Your task to perform on an android device: toggle improve location accuracy Image 0: 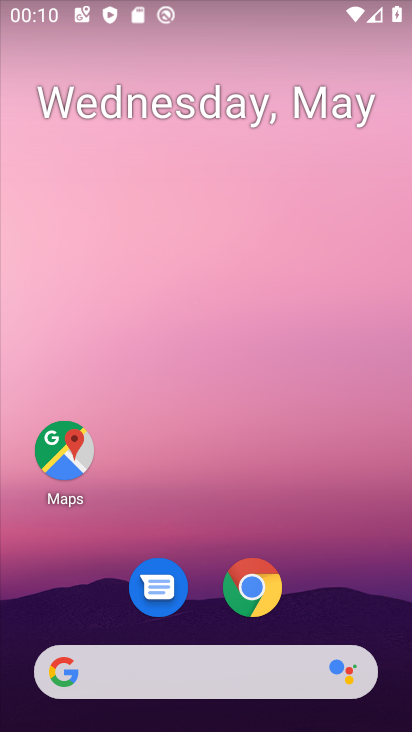
Step 0: drag from (374, 594) to (306, 179)
Your task to perform on an android device: toggle improve location accuracy Image 1: 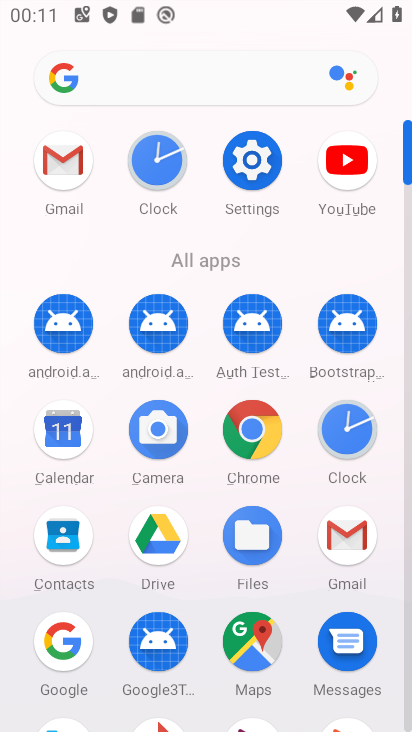
Step 1: click (244, 185)
Your task to perform on an android device: toggle improve location accuracy Image 2: 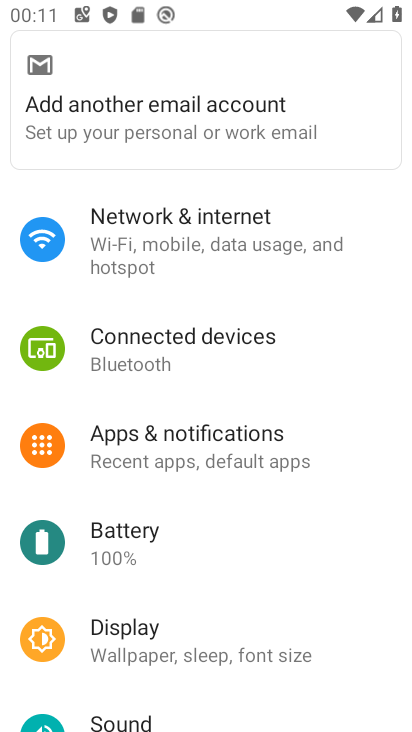
Step 2: drag from (240, 557) to (194, 395)
Your task to perform on an android device: toggle improve location accuracy Image 3: 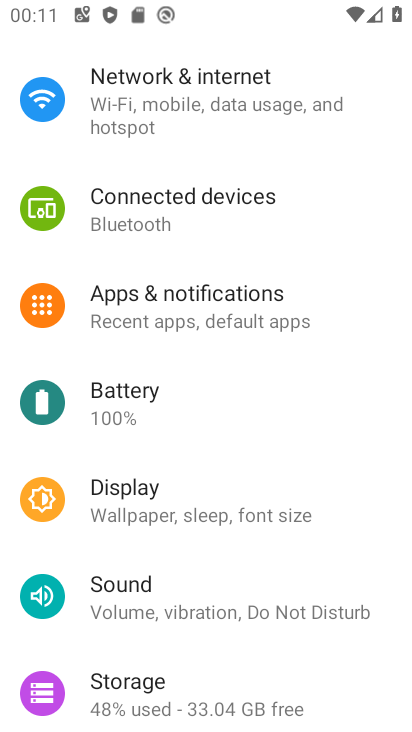
Step 3: drag from (241, 631) to (186, 377)
Your task to perform on an android device: toggle improve location accuracy Image 4: 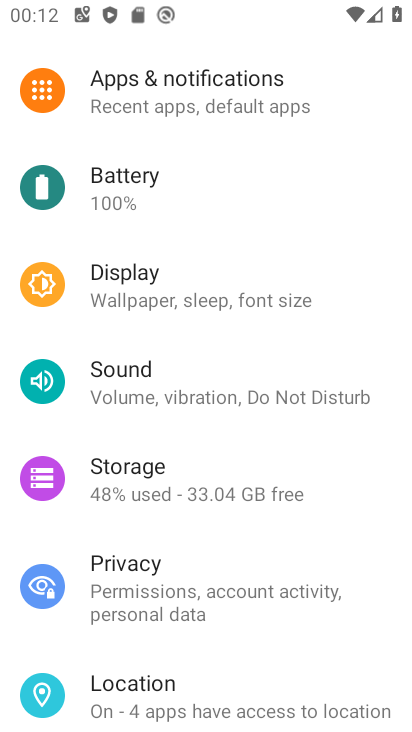
Step 4: click (251, 688)
Your task to perform on an android device: toggle improve location accuracy Image 5: 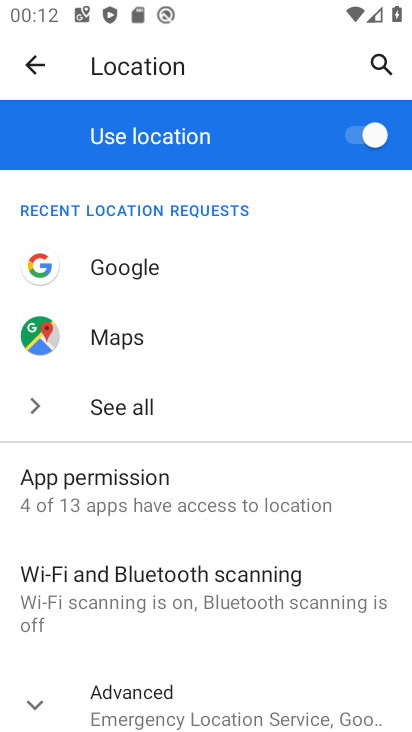
Step 5: click (137, 702)
Your task to perform on an android device: toggle improve location accuracy Image 6: 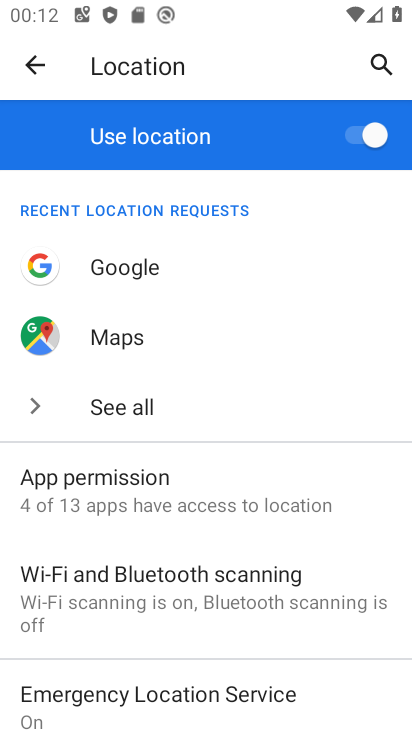
Step 6: drag from (188, 677) to (148, 477)
Your task to perform on an android device: toggle improve location accuracy Image 7: 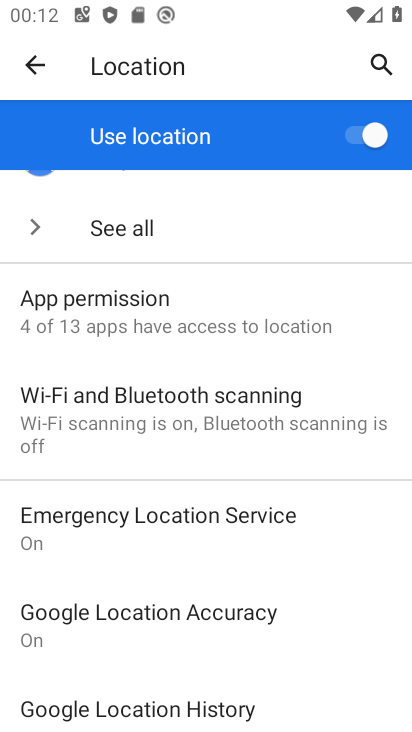
Step 7: click (190, 622)
Your task to perform on an android device: toggle improve location accuracy Image 8: 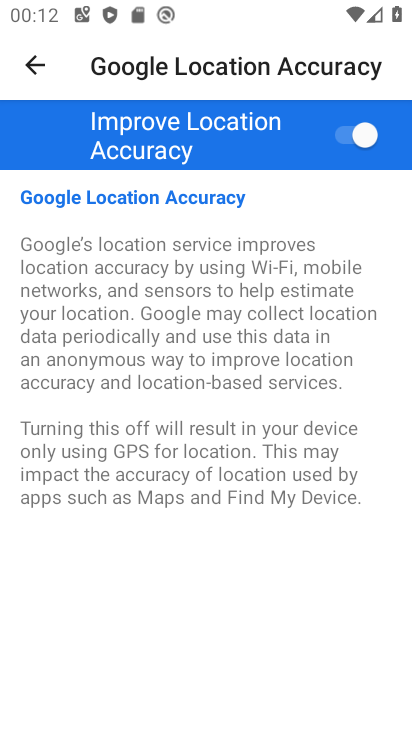
Step 8: click (339, 134)
Your task to perform on an android device: toggle improve location accuracy Image 9: 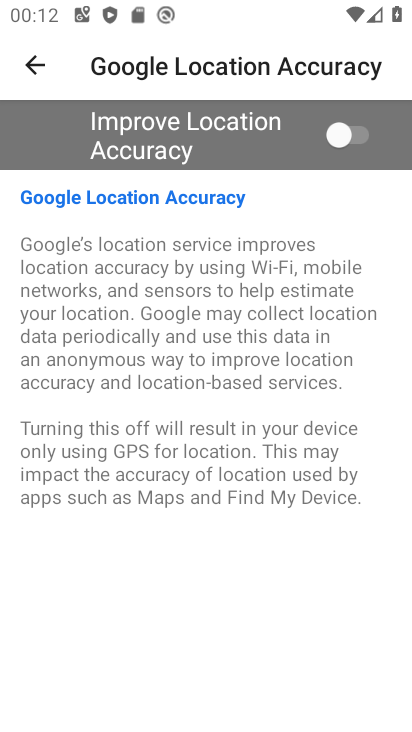
Step 9: task complete